Your task to perform on an android device: refresh tabs in the chrome app Image 0: 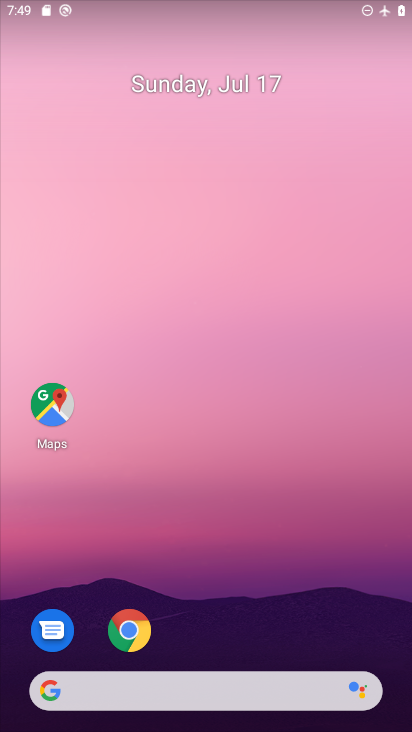
Step 0: drag from (380, 646) to (218, 52)
Your task to perform on an android device: refresh tabs in the chrome app Image 1: 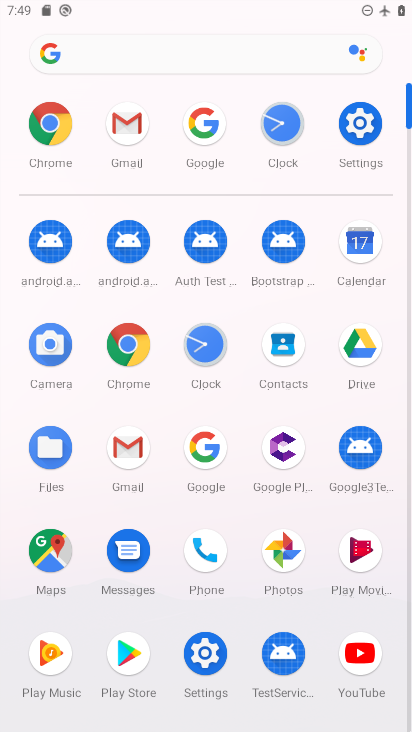
Step 1: click (134, 347)
Your task to perform on an android device: refresh tabs in the chrome app Image 2: 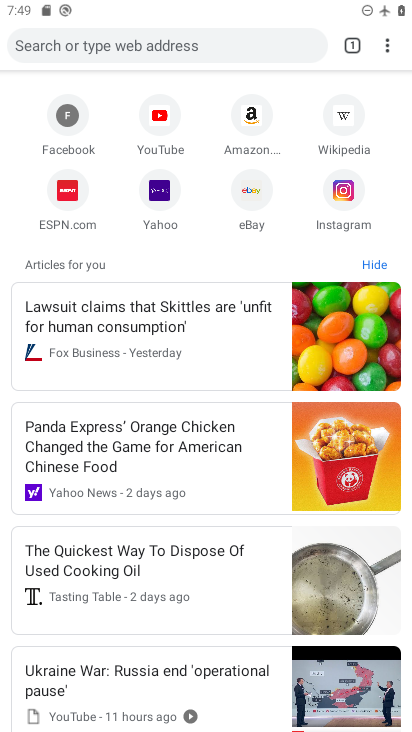
Step 2: click (388, 38)
Your task to perform on an android device: refresh tabs in the chrome app Image 3: 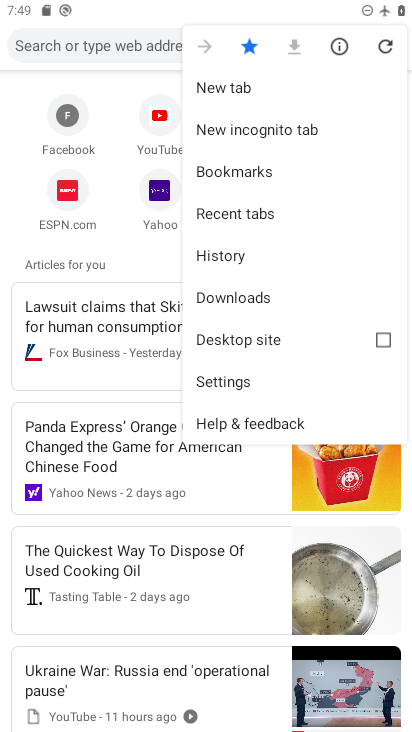
Step 3: click (390, 42)
Your task to perform on an android device: refresh tabs in the chrome app Image 4: 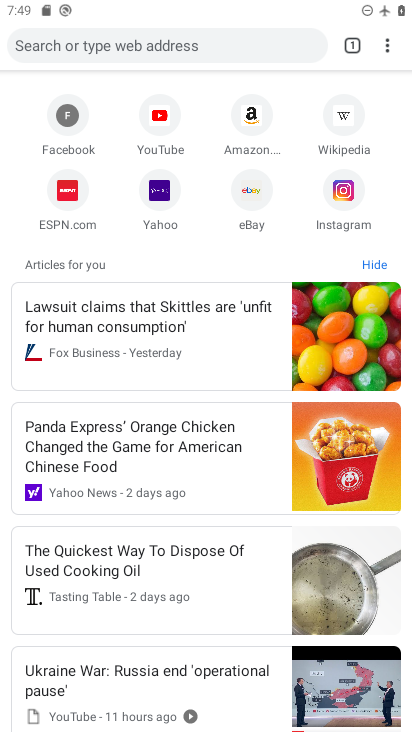
Step 4: task complete